Your task to perform on an android device: Open calendar and show me the fourth week of next month Image 0: 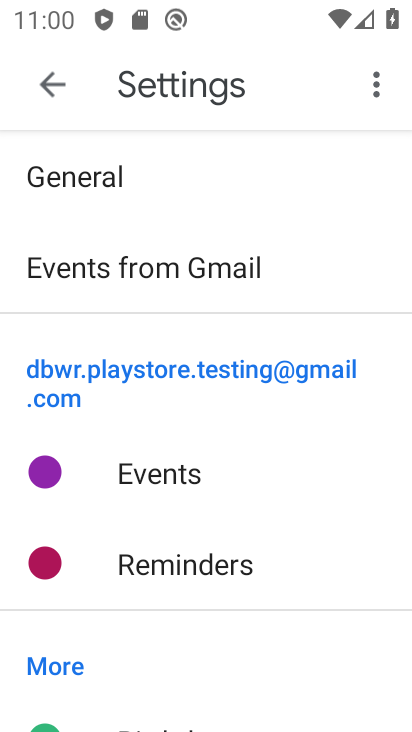
Step 0: press home button
Your task to perform on an android device: Open calendar and show me the fourth week of next month Image 1: 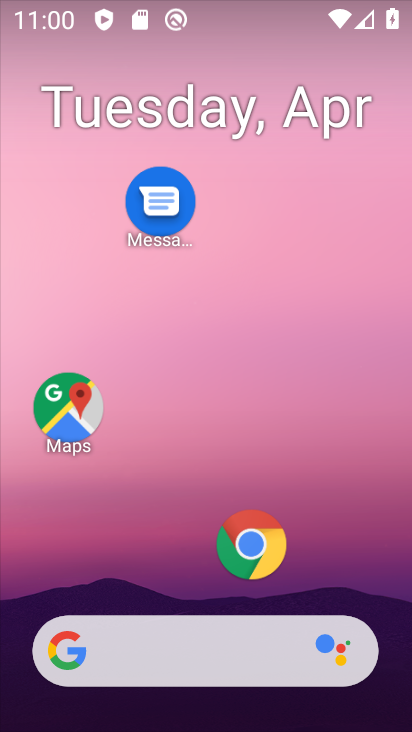
Step 1: drag from (177, 315) to (344, 6)
Your task to perform on an android device: Open calendar and show me the fourth week of next month Image 2: 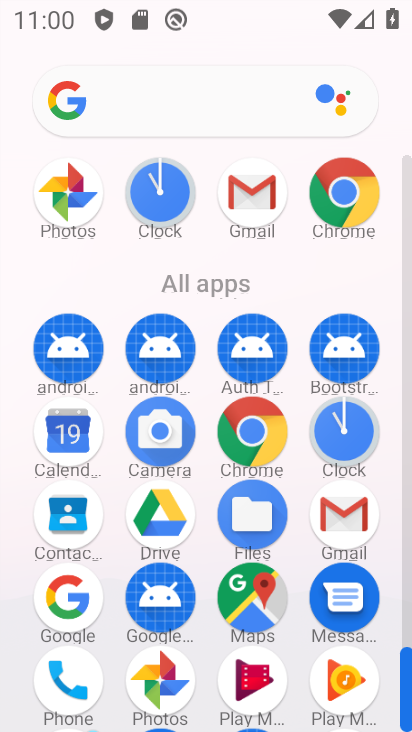
Step 2: click (74, 433)
Your task to perform on an android device: Open calendar and show me the fourth week of next month Image 3: 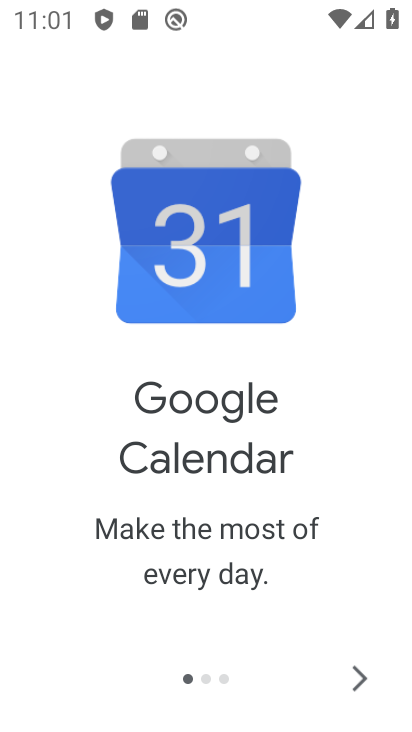
Step 3: click (366, 677)
Your task to perform on an android device: Open calendar and show me the fourth week of next month Image 4: 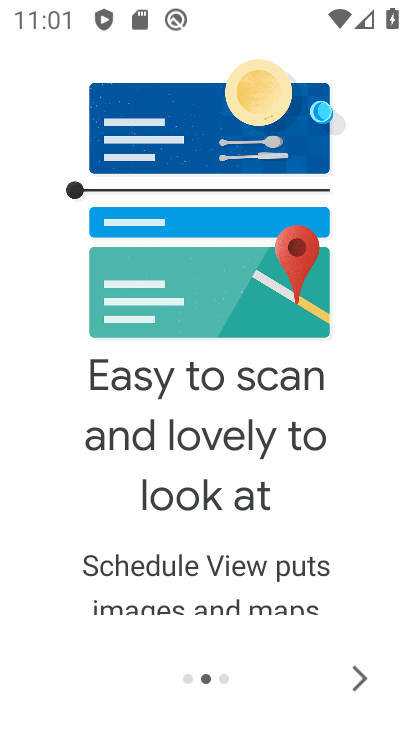
Step 4: click (357, 675)
Your task to perform on an android device: Open calendar and show me the fourth week of next month Image 5: 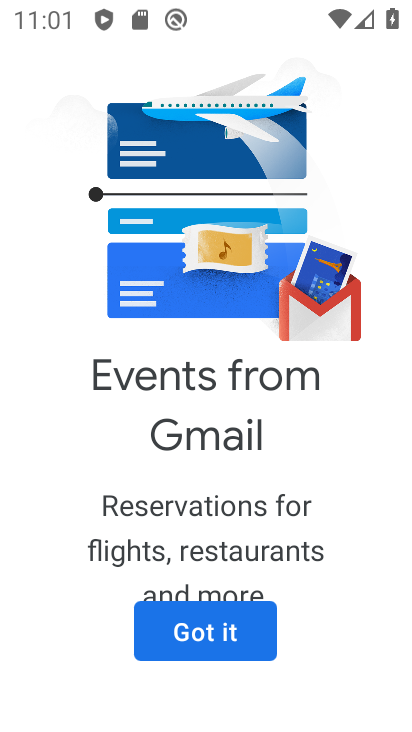
Step 5: click (237, 632)
Your task to perform on an android device: Open calendar and show me the fourth week of next month Image 6: 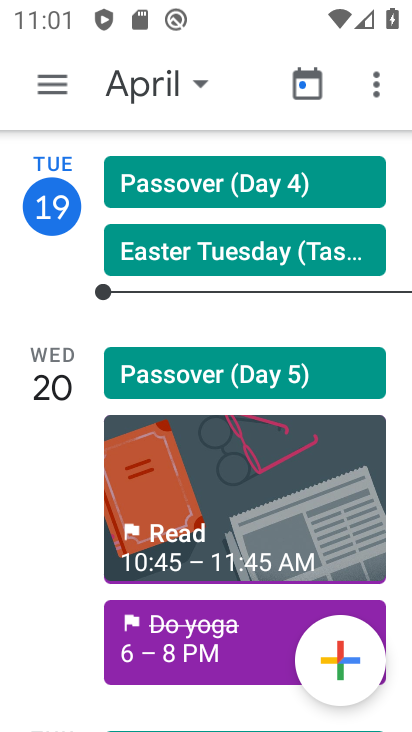
Step 6: click (53, 87)
Your task to perform on an android device: Open calendar and show me the fourth week of next month Image 7: 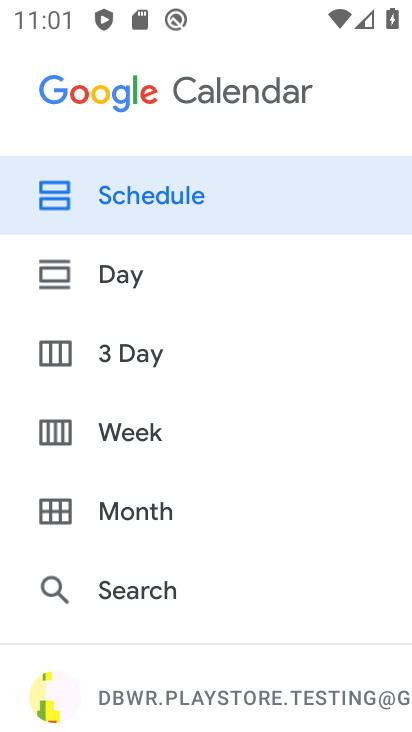
Step 7: click (145, 434)
Your task to perform on an android device: Open calendar and show me the fourth week of next month Image 8: 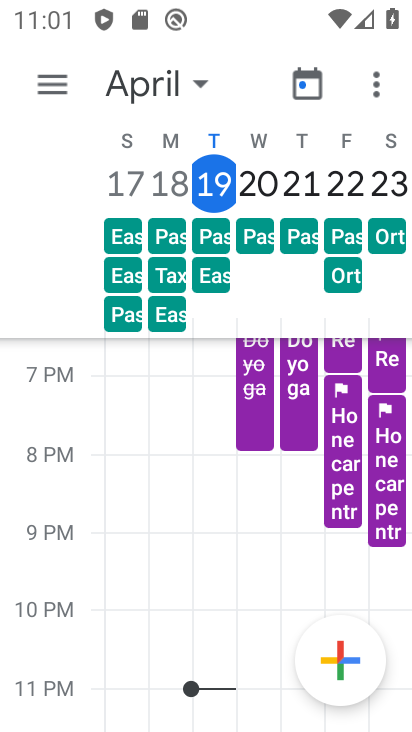
Step 8: click (148, 86)
Your task to perform on an android device: Open calendar and show me the fourth week of next month Image 9: 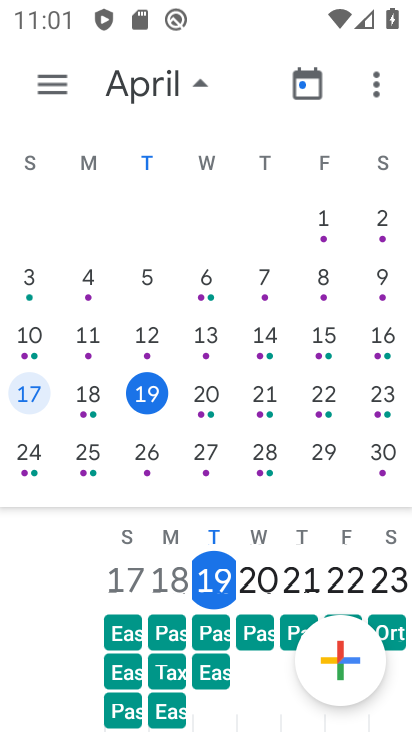
Step 9: drag from (315, 307) to (7, 262)
Your task to perform on an android device: Open calendar and show me the fourth week of next month Image 10: 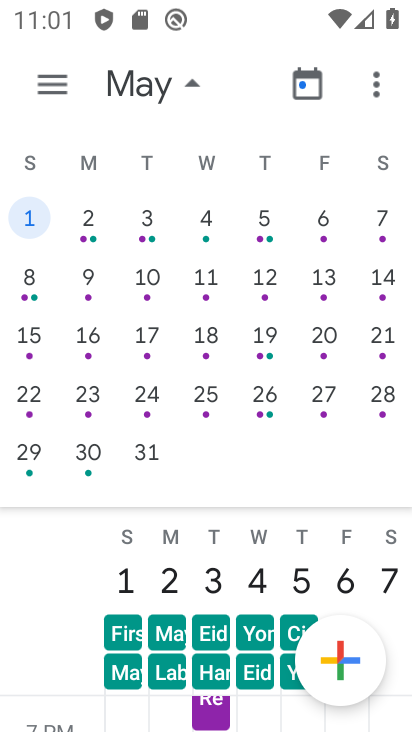
Step 10: click (42, 82)
Your task to perform on an android device: Open calendar and show me the fourth week of next month Image 11: 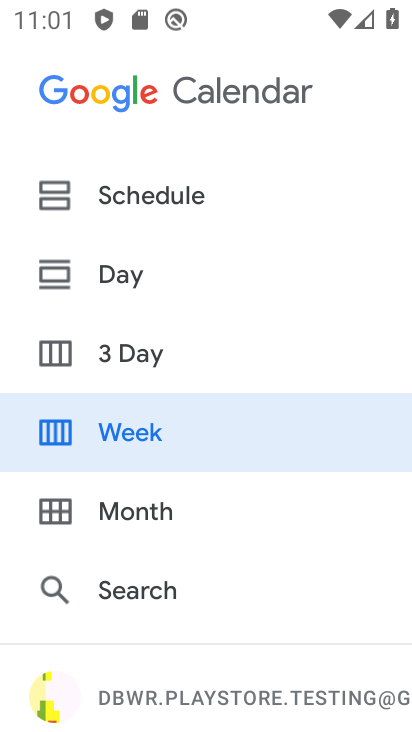
Step 11: click (129, 442)
Your task to perform on an android device: Open calendar and show me the fourth week of next month Image 12: 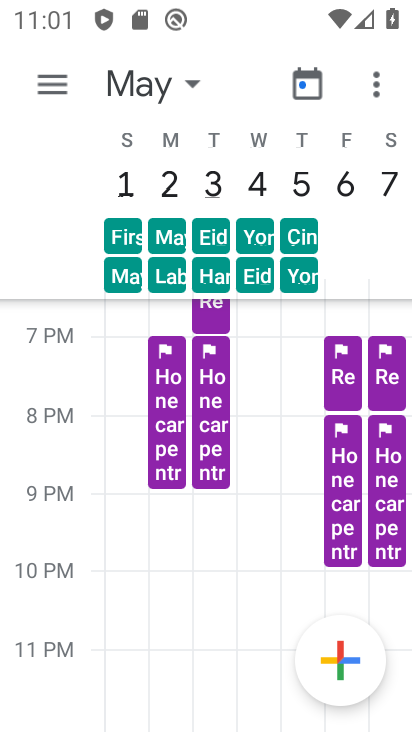
Step 12: task complete